Your task to perform on an android device: find photos in the google photos app Image 0: 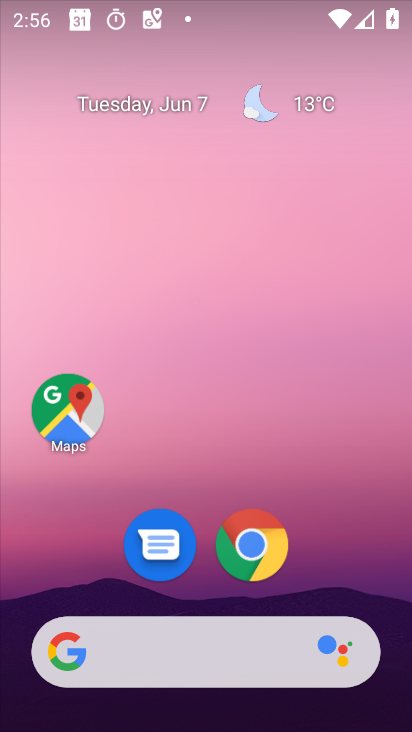
Step 0: drag from (365, 564) to (297, 39)
Your task to perform on an android device: find photos in the google photos app Image 1: 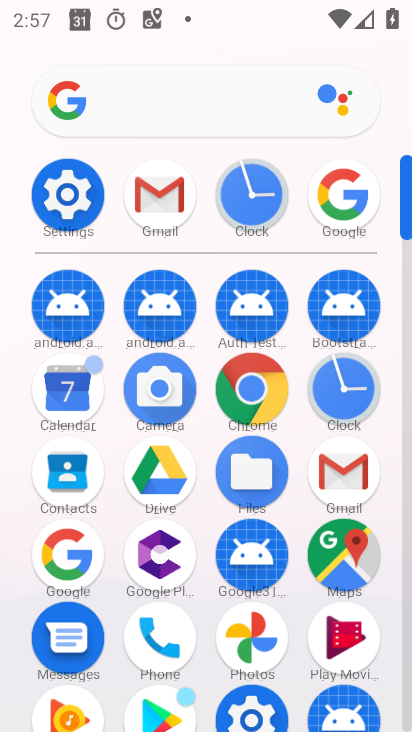
Step 1: click (264, 651)
Your task to perform on an android device: find photos in the google photos app Image 2: 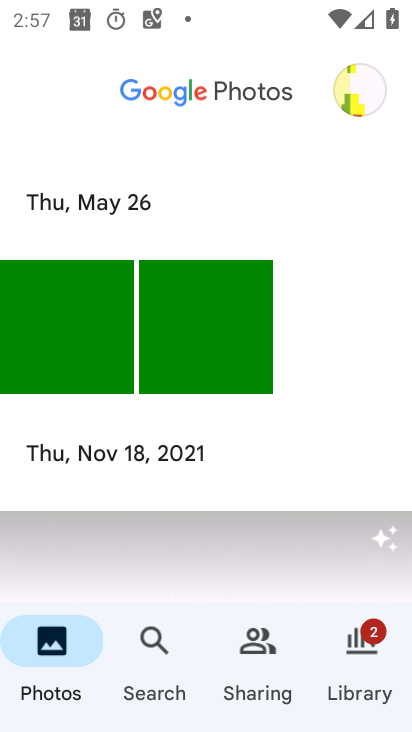
Step 2: task complete